Your task to perform on an android device: turn off picture-in-picture Image 0: 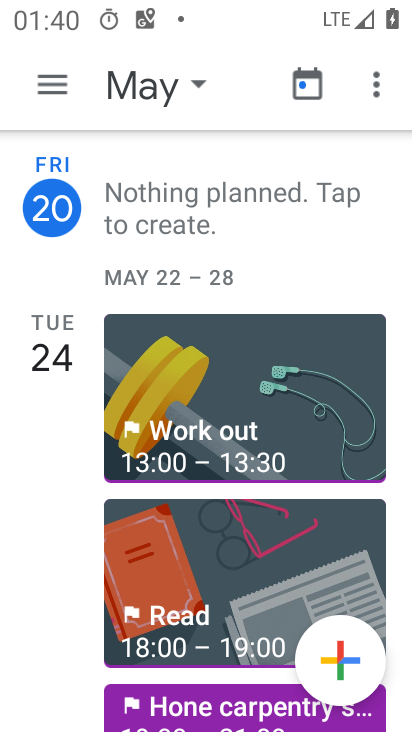
Step 0: press home button
Your task to perform on an android device: turn off picture-in-picture Image 1: 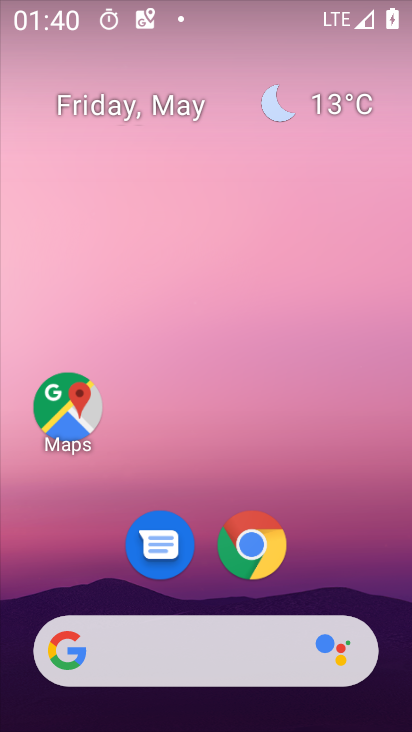
Step 1: click (276, 64)
Your task to perform on an android device: turn off picture-in-picture Image 2: 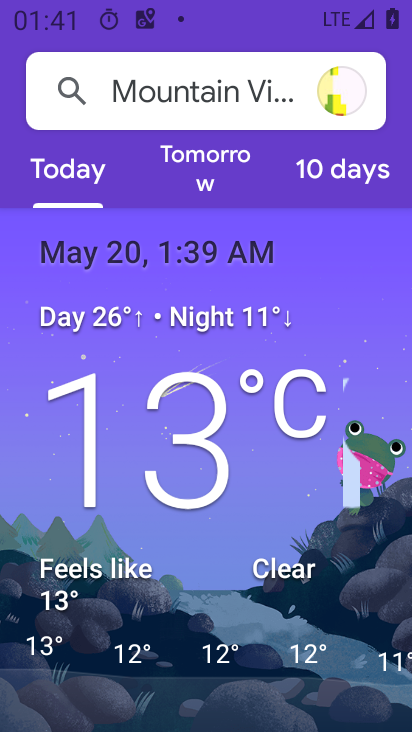
Step 2: press home button
Your task to perform on an android device: turn off picture-in-picture Image 3: 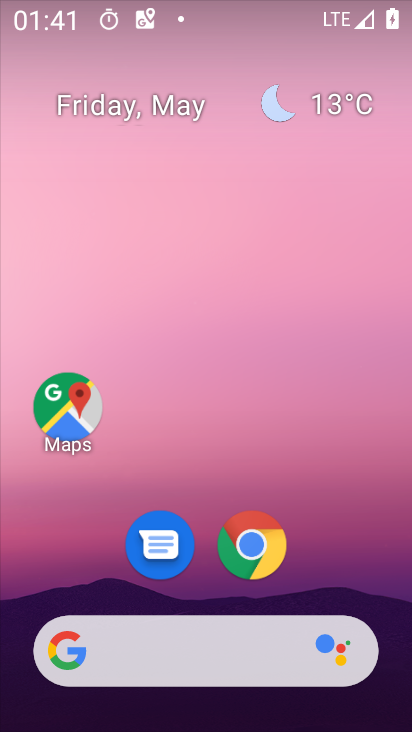
Step 3: drag from (284, 567) to (284, 79)
Your task to perform on an android device: turn off picture-in-picture Image 4: 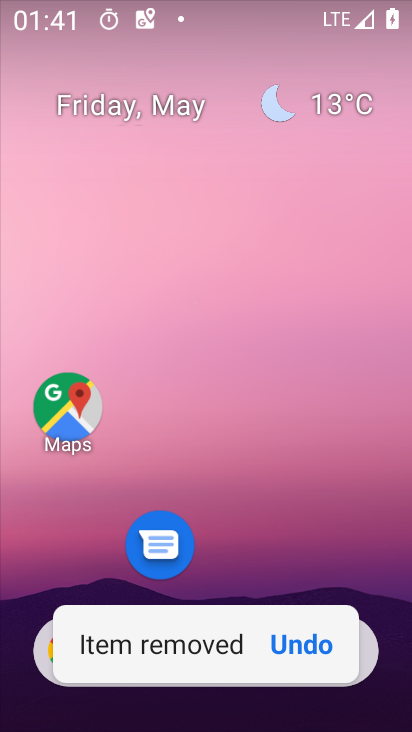
Step 4: click (298, 643)
Your task to perform on an android device: turn off picture-in-picture Image 5: 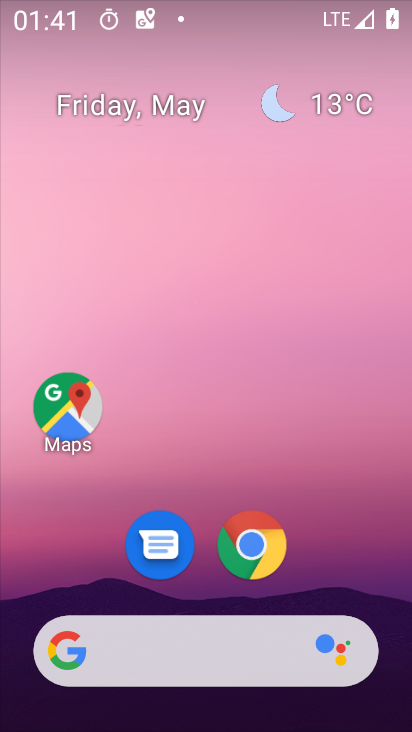
Step 5: drag from (307, 580) to (248, 171)
Your task to perform on an android device: turn off picture-in-picture Image 6: 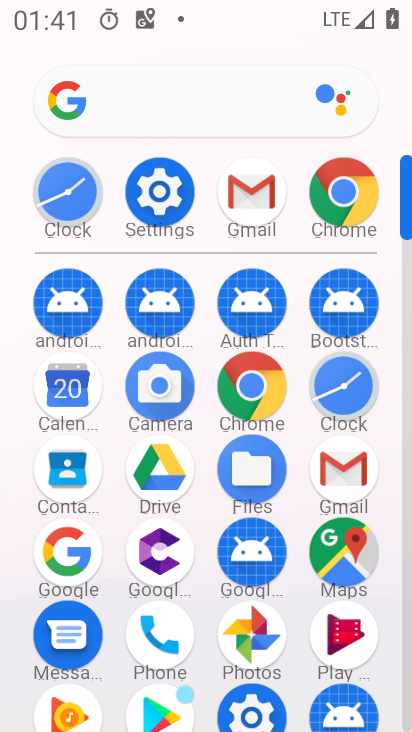
Step 6: click (151, 205)
Your task to perform on an android device: turn off picture-in-picture Image 7: 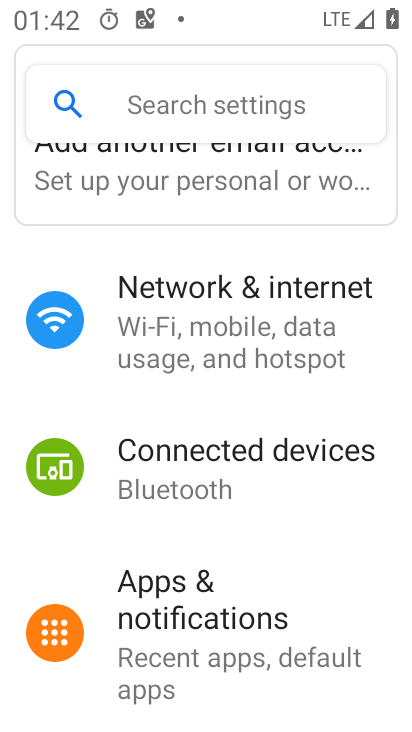
Step 7: drag from (207, 613) to (186, 235)
Your task to perform on an android device: turn off picture-in-picture Image 8: 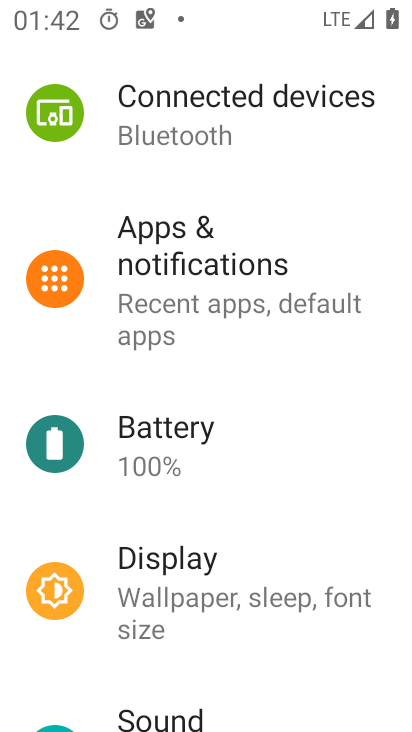
Step 8: drag from (245, 491) to (235, 181)
Your task to perform on an android device: turn off picture-in-picture Image 9: 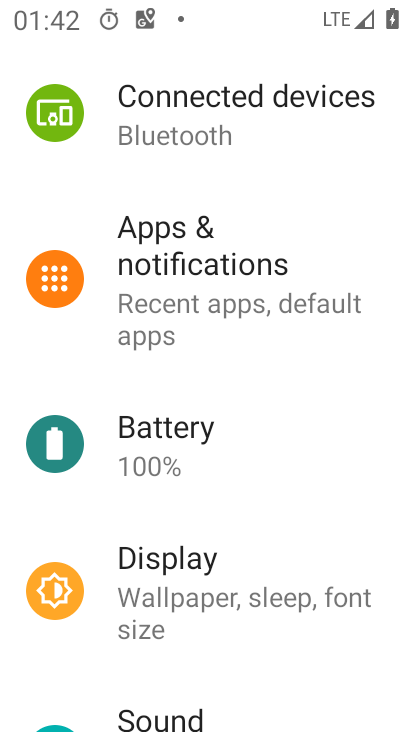
Step 9: drag from (194, 628) to (249, 185)
Your task to perform on an android device: turn off picture-in-picture Image 10: 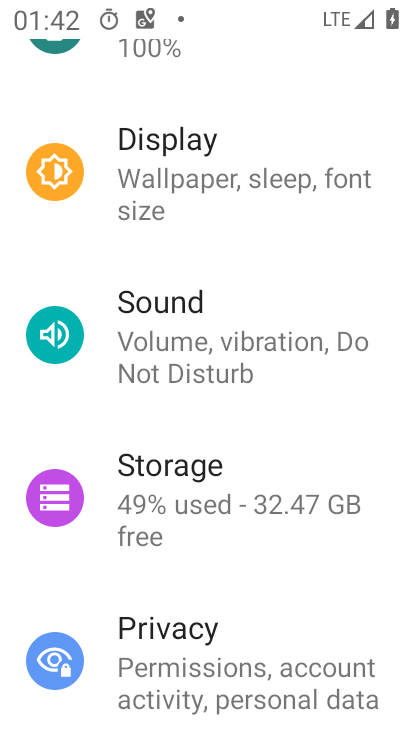
Step 10: drag from (244, 162) to (238, 515)
Your task to perform on an android device: turn off picture-in-picture Image 11: 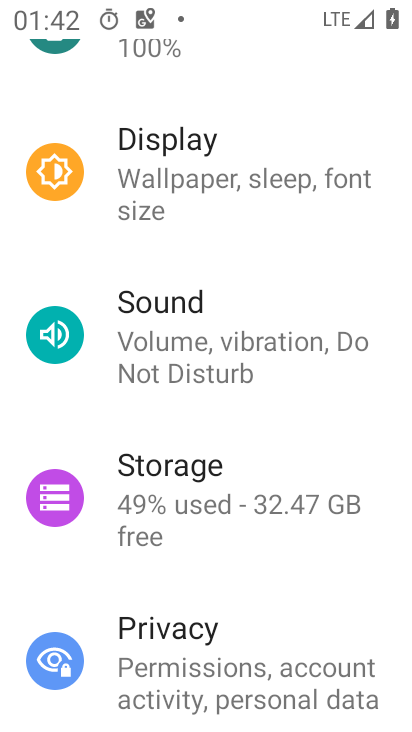
Step 11: drag from (199, 328) to (196, 551)
Your task to perform on an android device: turn off picture-in-picture Image 12: 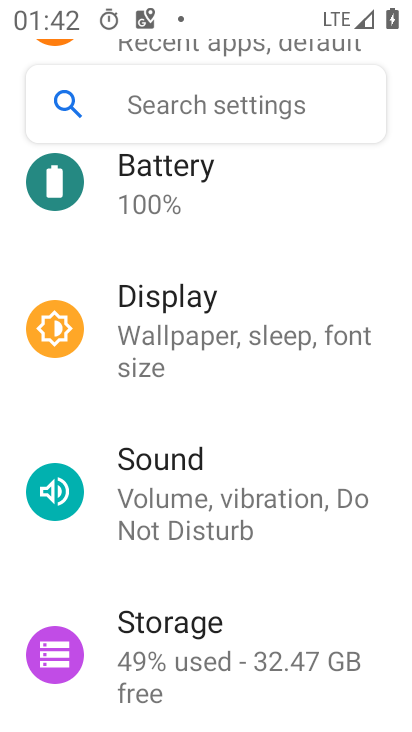
Step 12: drag from (266, 497) to (263, 566)
Your task to perform on an android device: turn off picture-in-picture Image 13: 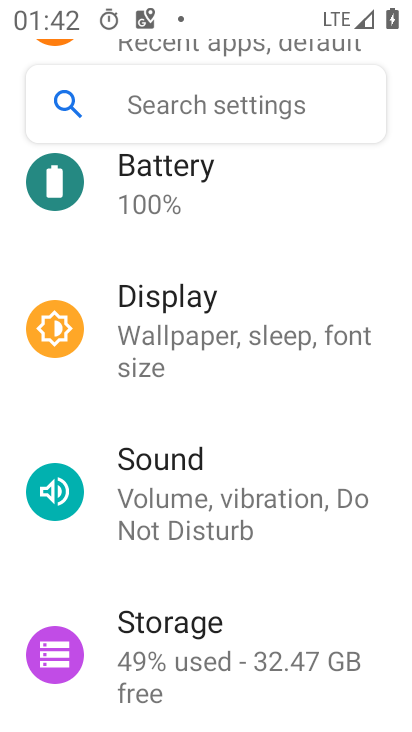
Step 13: drag from (199, 455) to (190, 515)
Your task to perform on an android device: turn off picture-in-picture Image 14: 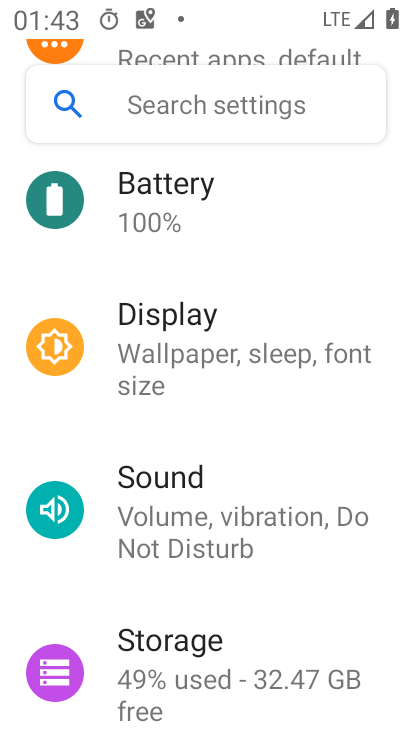
Step 14: drag from (240, 595) to (232, 457)
Your task to perform on an android device: turn off picture-in-picture Image 15: 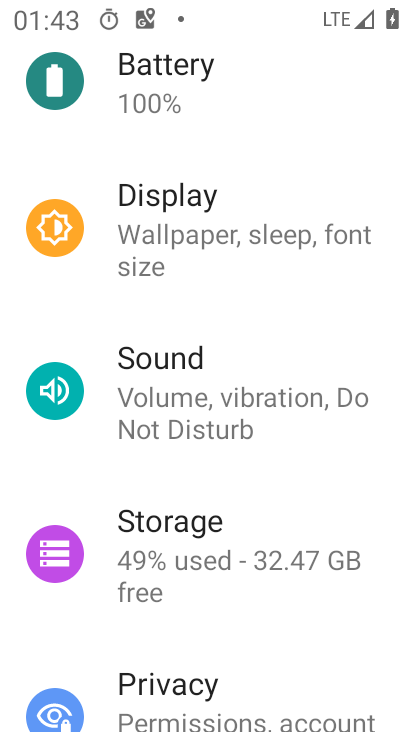
Step 15: drag from (226, 326) to (236, 687)
Your task to perform on an android device: turn off picture-in-picture Image 16: 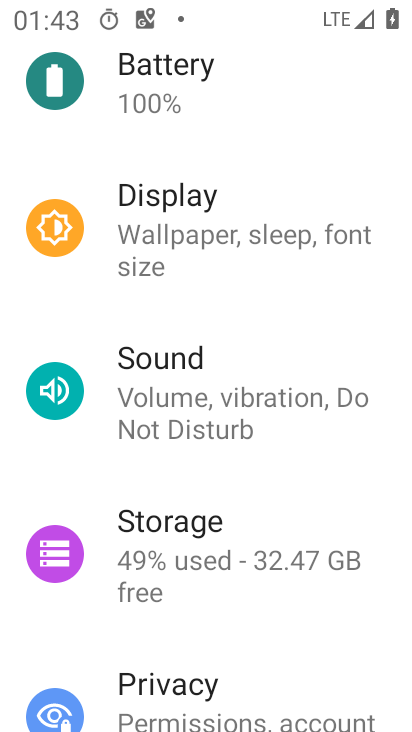
Step 16: drag from (282, 273) to (257, 622)
Your task to perform on an android device: turn off picture-in-picture Image 17: 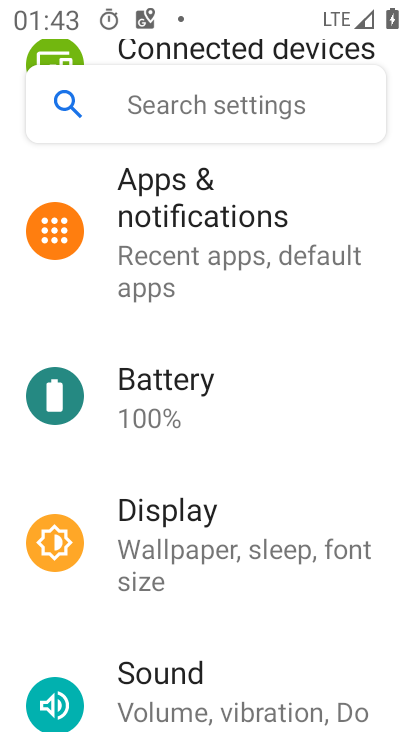
Step 17: press back button
Your task to perform on an android device: turn off picture-in-picture Image 18: 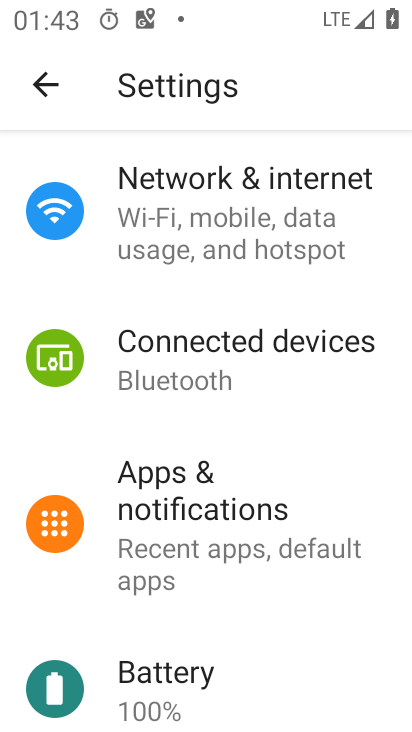
Step 18: press back button
Your task to perform on an android device: turn off picture-in-picture Image 19: 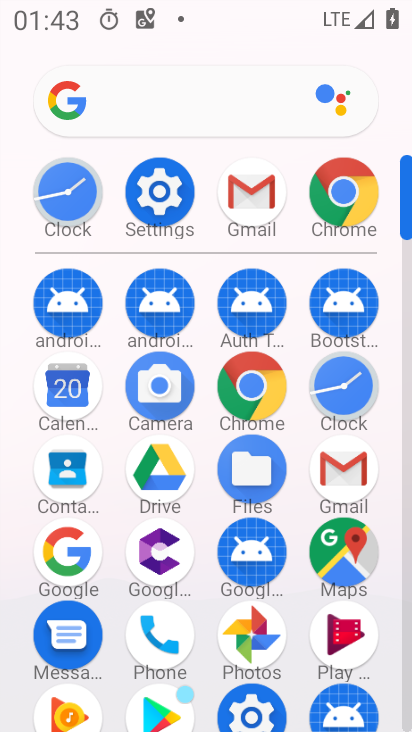
Step 19: click (253, 709)
Your task to perform on an android device: turn off picture-in-picture Image 20: 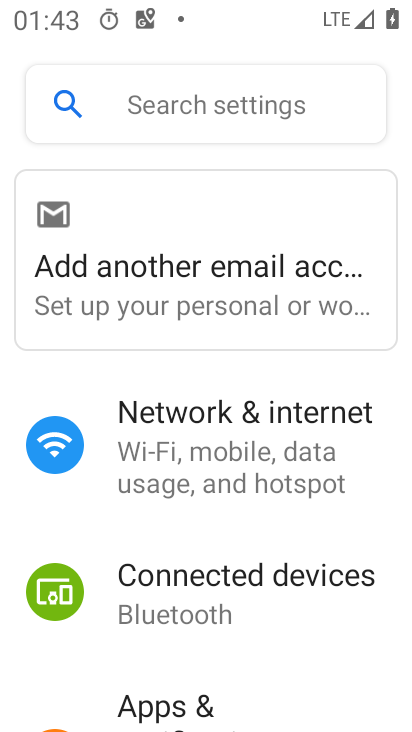
Step 20: click (192, 483)
Your task to perform on an android device: turn off picture-in-picture Image 21: 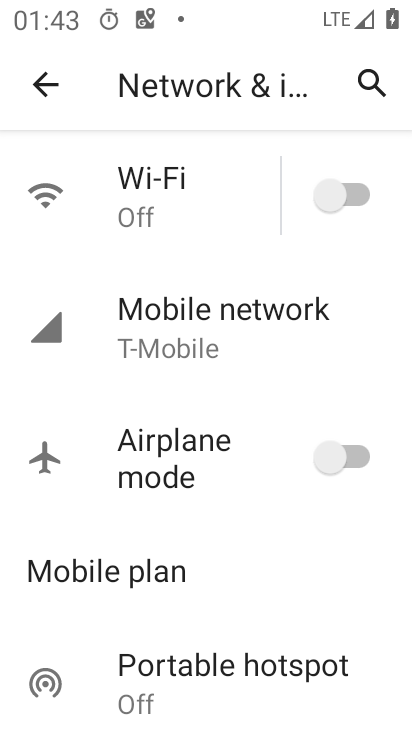
Step 21: press back button
Your task to perform on an android device: turn off picture-in-picture Image 22: 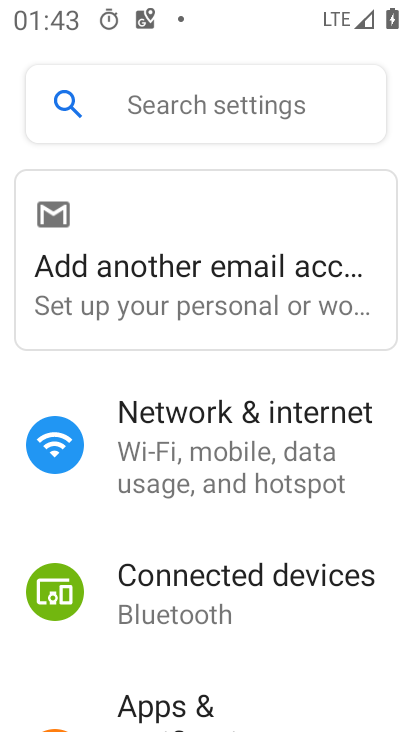
Step 22: drag from (295, 232) to (288, 131)
Your task to perform on an android device: turn off picture-in-picture Image 23: 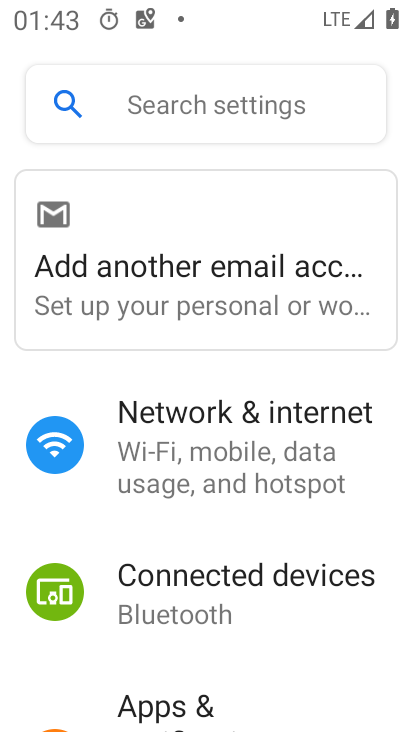
Step 23: drag from (188, 363) to (199, 191)
Your task to perform on an android device: turn off picture-in-picture Image 24: 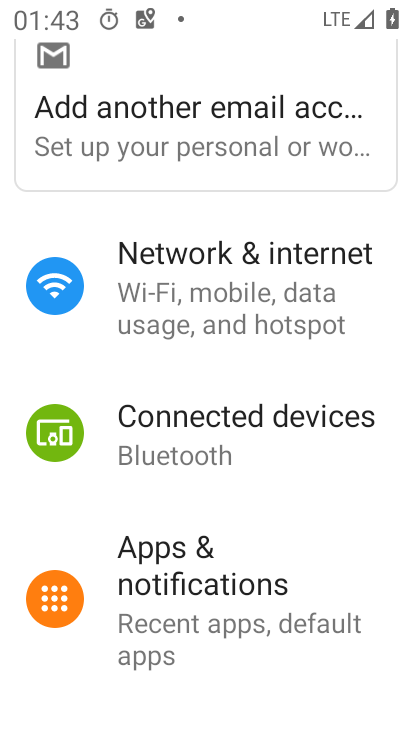
Step 24: click (158, 605)
Your task to perform on an android device: turn off picture-in-picture Image 25: 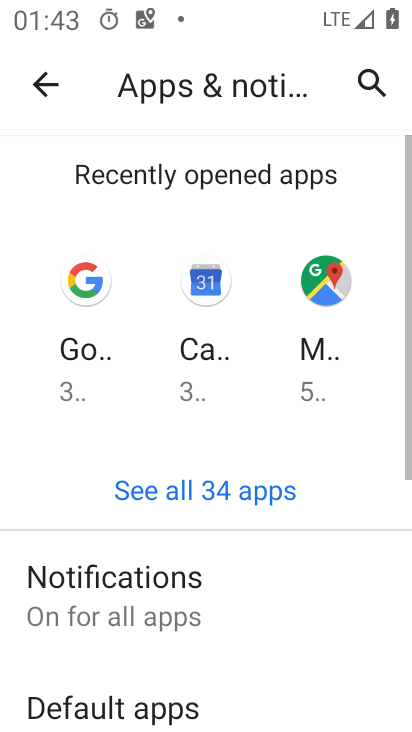
Step 25: drag from (178, 653) to (226, 367)
Your task to perform on an android device: turn off picture-in-picture Image 26: 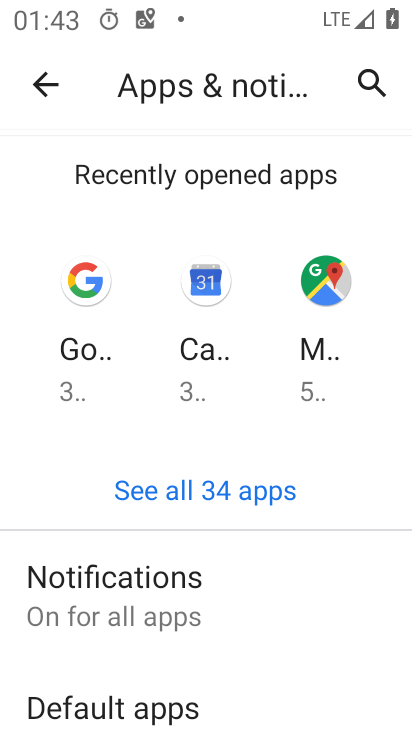
Step 26: click (175, 389)
Your task to perform on an android device: turn off picture-in-picture Image 27: 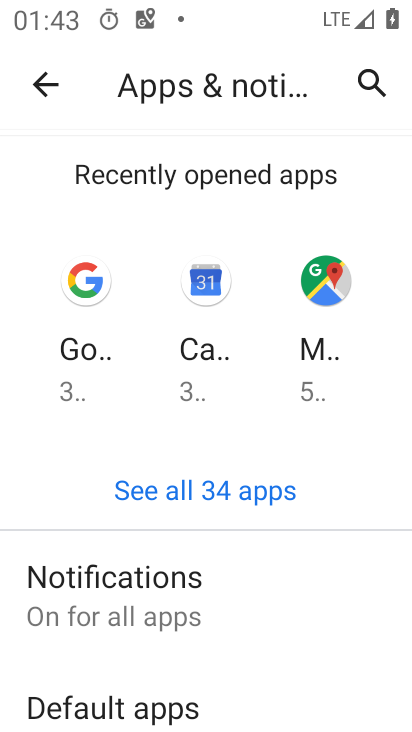
Step 27: drag from (246, 503) to (206, 290)
Your task to perform on an android device: turn off picture-in-picture Image 28: 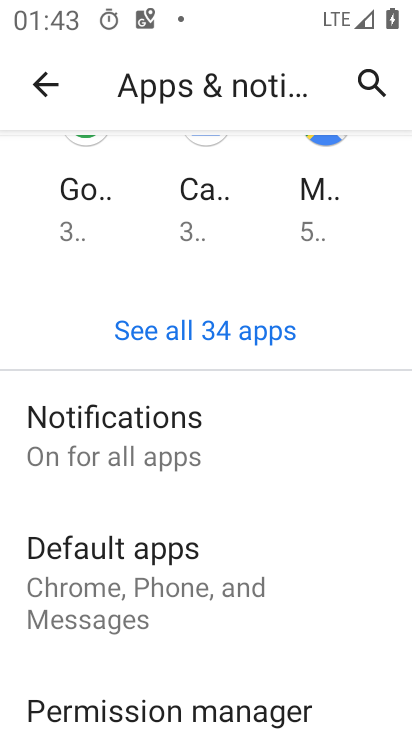
Step 28: drag from (189, 497) to (203, 366)
Your task to perform on an android device: turn off picture-in-picture Image 29: 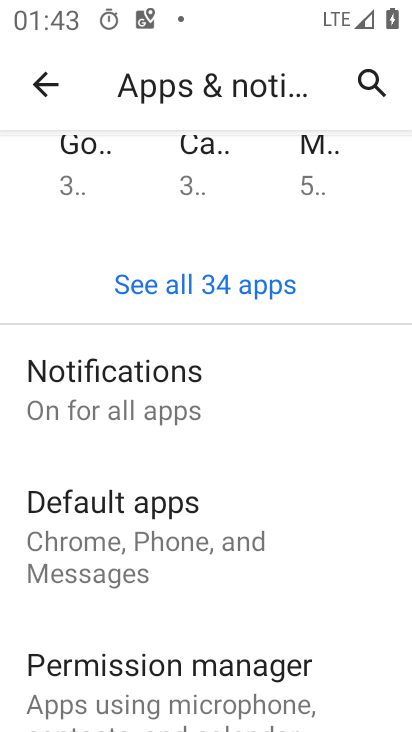
Step 29: drag from (271, 622) to (263, 292)
Your task to perform on an android device: turn off picture-in-picture Image 30: 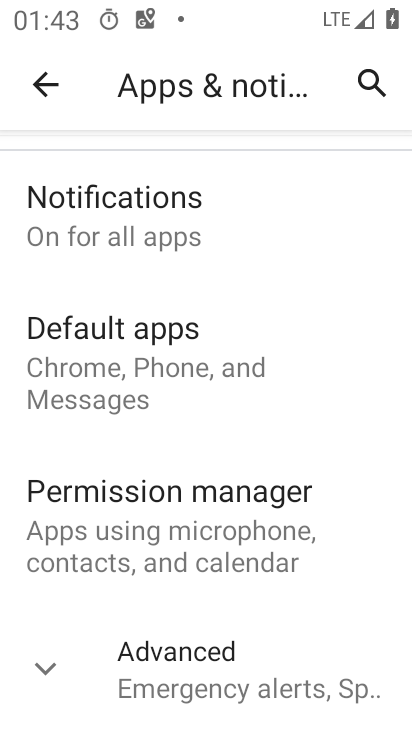
Step 30: click (215, 687)
Your task to perform on an android device: turn off picture-in-picture Image 31: 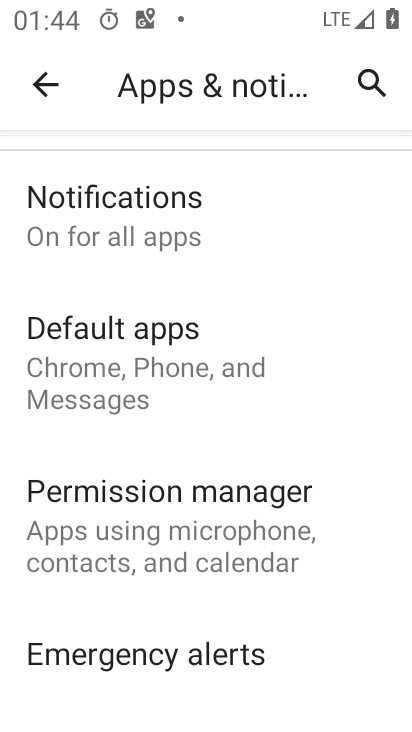
Step 31: drag from (202, 669) to (151, 434)
Your task to perform on an android device: turn off picture-in-picture Image 32: 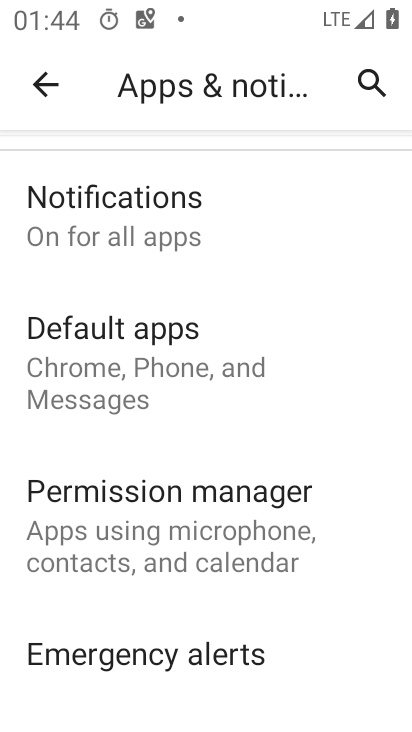
Step 32: drag from (209, 628) to (207, 256)
Your task to perform on an android device: turn off picture-in-picture Image 33: 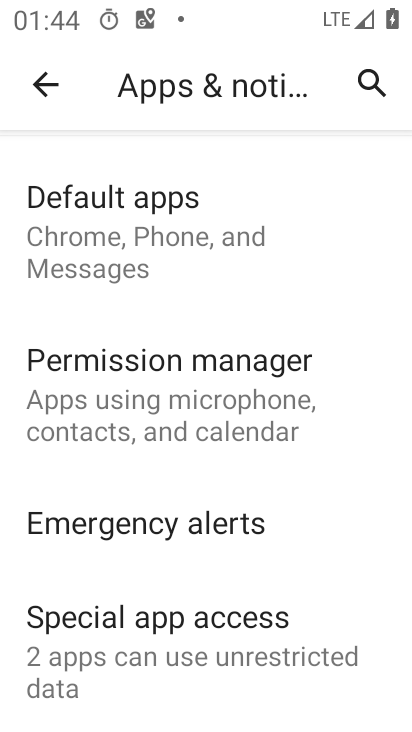
Step 33: click (186, 628)
Your task to perform on an android device: turn off picture-in-picture Image 34: 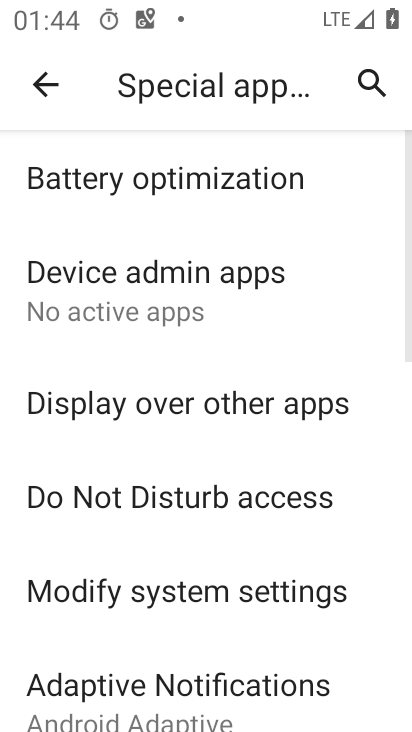
Step 34: drag from (190, 632) to (190, 263)
Your task to perform on an android device: turn off picture-in-picture Image 35: 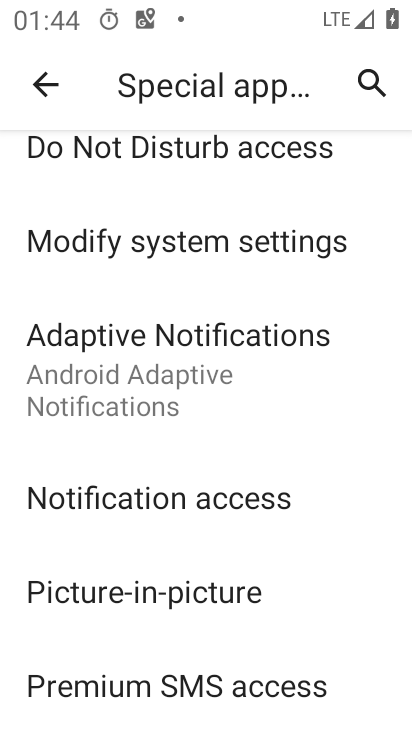
Step 35: click (187, 600)
Your task to perform on an android device: turn off picture-in-picture Image 36: 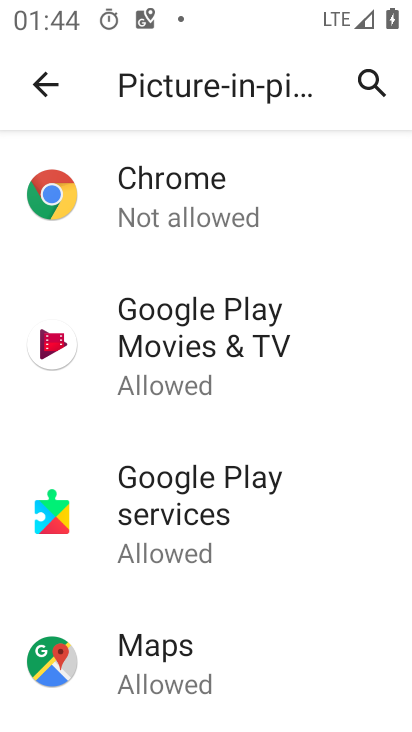
Step 36: drag from (227, 547) to (254, 251)
Your task to perform on an android device: turn off picture-in-picture Image 37: 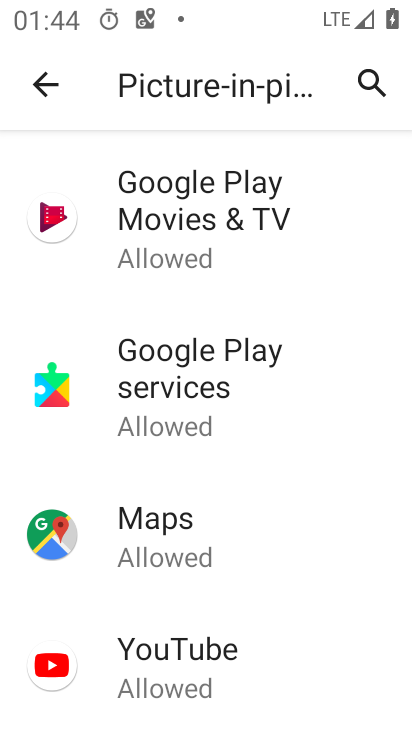
Step 37: click (162, 379)
Your task to perform on an android device: turn off picture-in-picture Image 38: 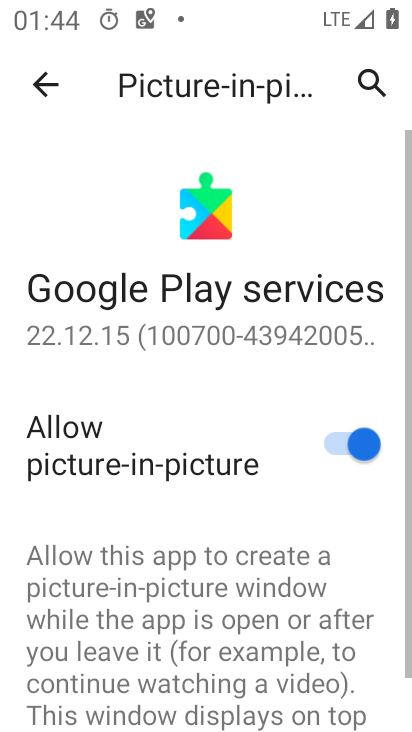
Step 38: click (317, 454)
Your task to perform on an android device: turn off picture-in-picture Image 39: 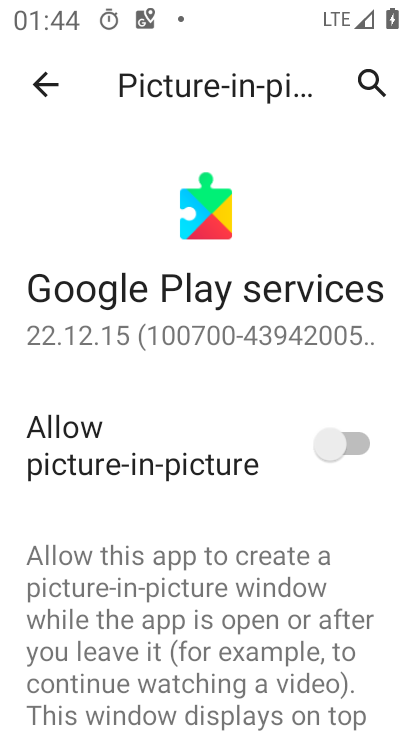
Step 39: task complete